Your task to perform on an android device: turn on sleep mode Image 0: 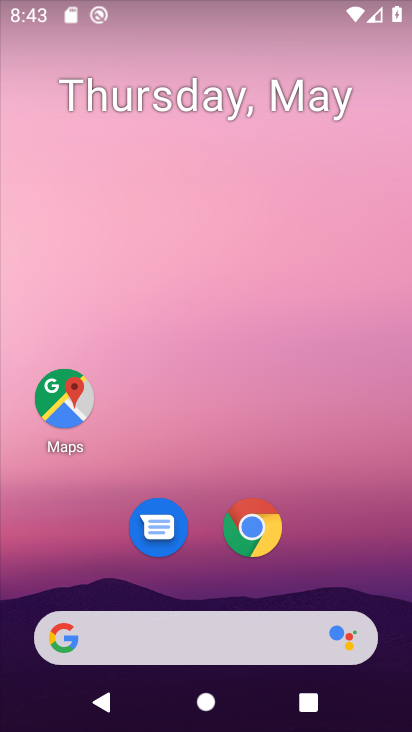
Step 0: drag from (200, 587) to (172, 128)
Your task to perform on an android device: turn on sleep mode Image 1: 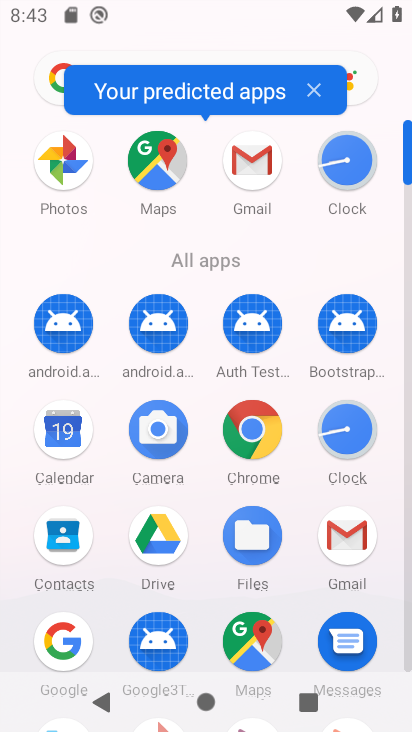
Step 1: task complete